Your task to perform on an android device: Go to settings Image 0: 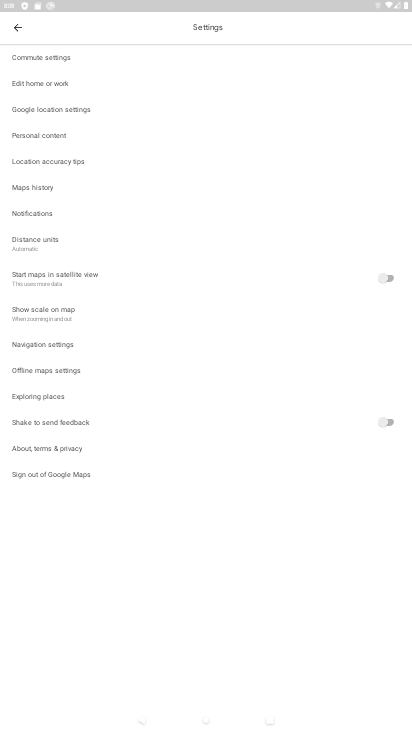
Step 0: press home button
Your task to perform on an android device: Go to settings Image 1: 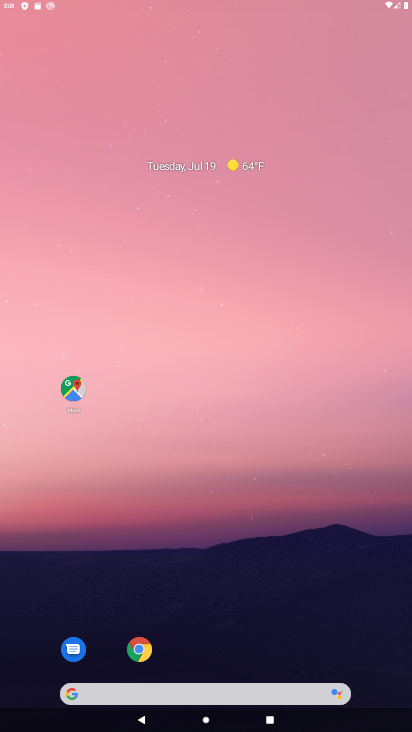
Step 1: click (189, 208)
Your task to perform on an android device: Go to settings Image 2: 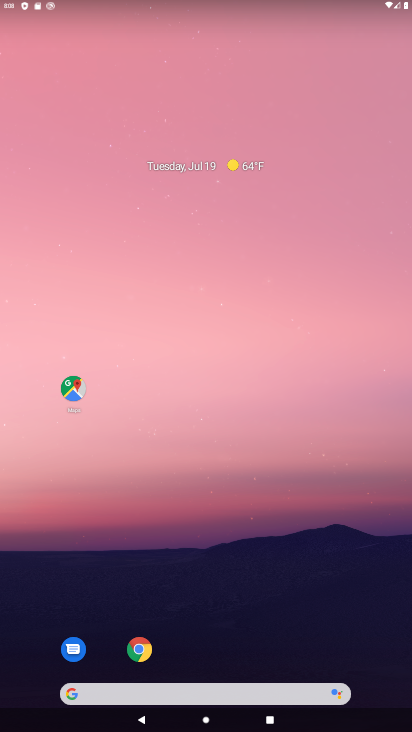
Step 2: drag from (210, 629) to (179, 151)
Your task to perform on an android device: Go to settings Image 3: 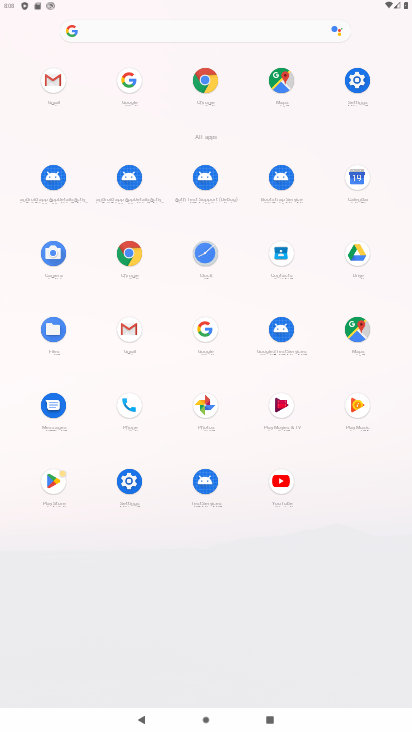
Step 3: click (359, 76)
Your task to perform on an android device: Go to settings Image 4: 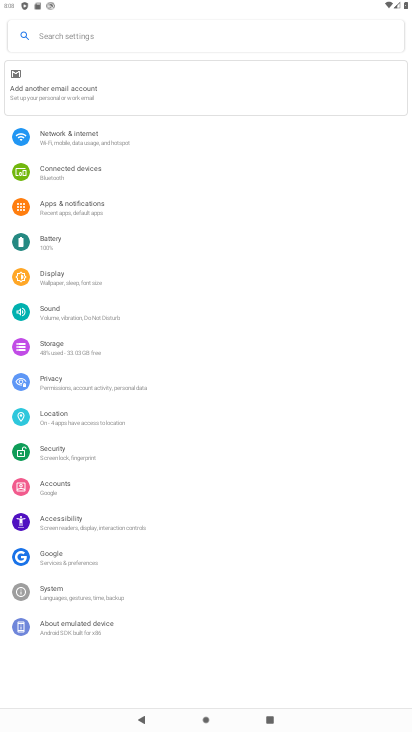
Step 4: task complete